Your task to perform on an android device: Open Google Chrome and click the shortcut for Amazon.com Image 0: 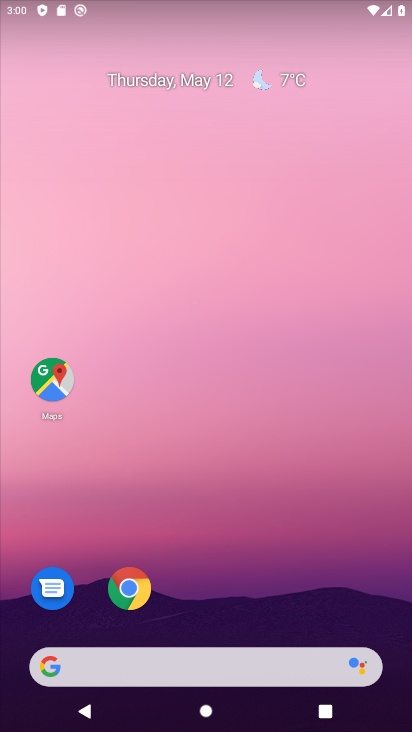
Step 0: click (248, 63)
Your task to perform on an android device: Open Google Chrome and click the shortcut for Amazon.com Image 1: 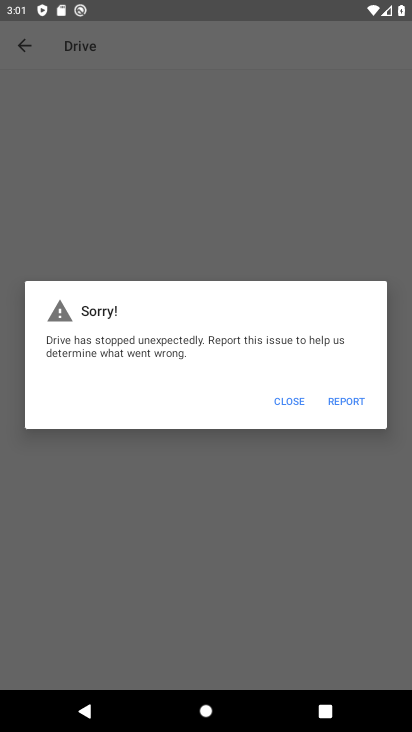
Step 1: press home button
Your task to perform on an android device: Open Google Chrome and click the shortcut for Amazon.com Image 2: 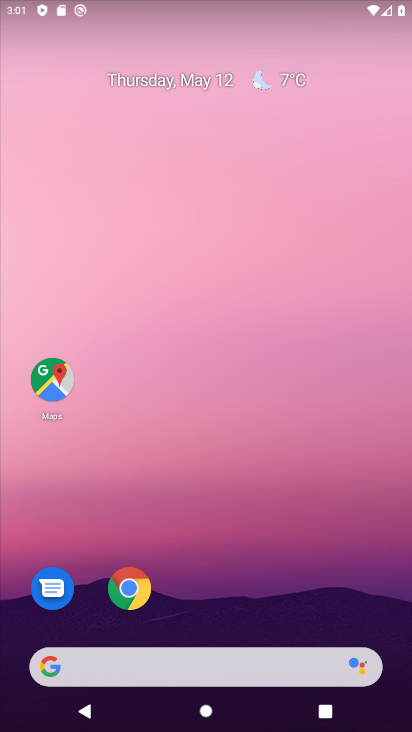
Step 2: click (120, 599)
Your task to perform on an android device: Open Google Chrome and click the shortcut for Amazon.com Image 3: 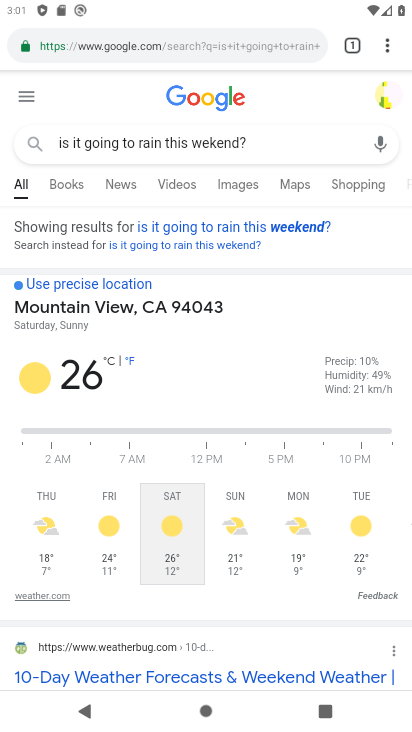
Step 3: click (249, 47)
Your task to perform on an android device: Open Google Chrome and click the shortcut for Amazon.com Image 4: 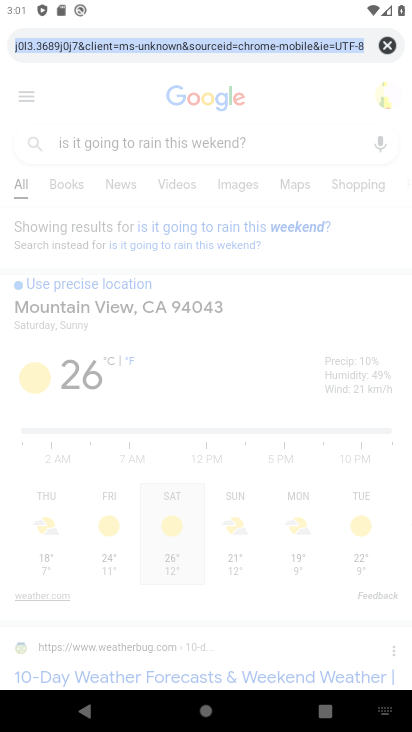
Step 4: type "amazon.com"
Your task to perform on an android device: Open Google Chrome and click the shortcut for Amazon.com Image 5: 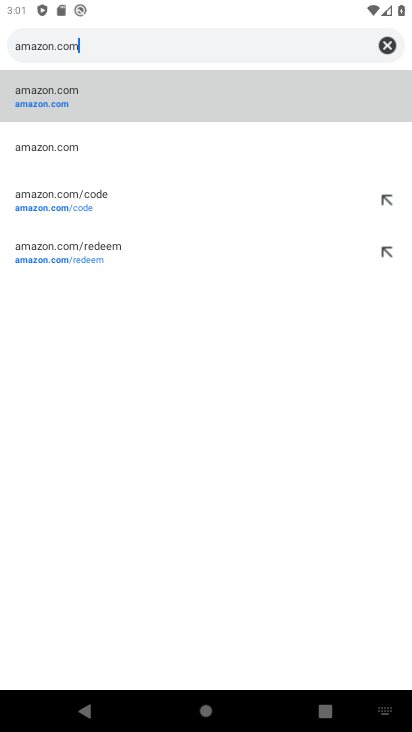
Step 5: click (35, 100)
Your task to perform on an android device: Open Google Chrome and click the shortcut for Amazon.com Image 6: 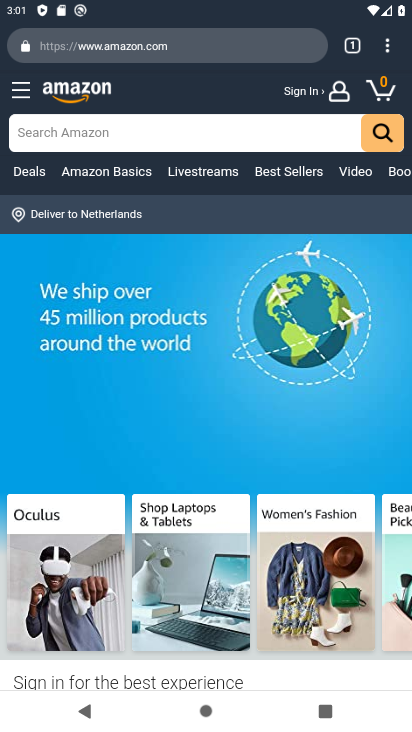
Step 6: task complete